Your task to perform on an android device: Clear the shopping cart on target.com. Image 0: 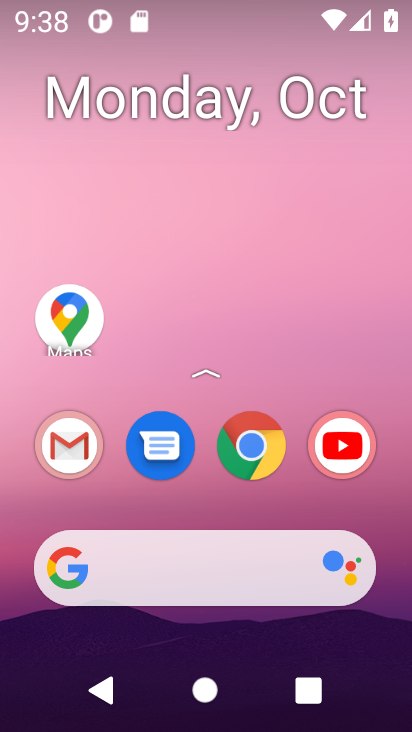
Step 0: click (197, 579)
Your task to perform on an android device: Clear the shopping cart on target.com. Image 1: 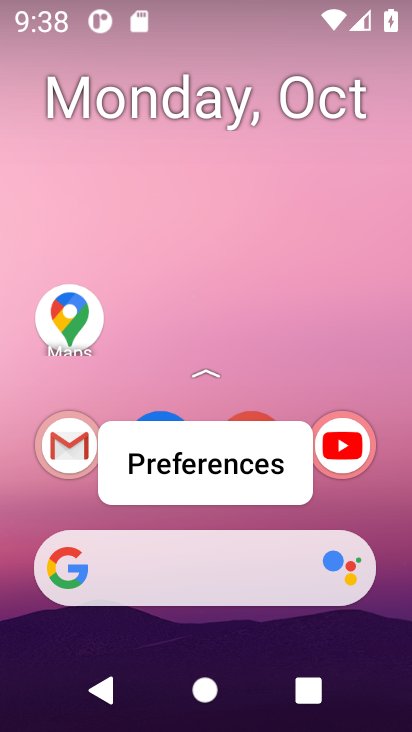
Step 1: click (182, 554)
Your task to perform on an android device: Clear the shopping cart on target.com. Image 2: 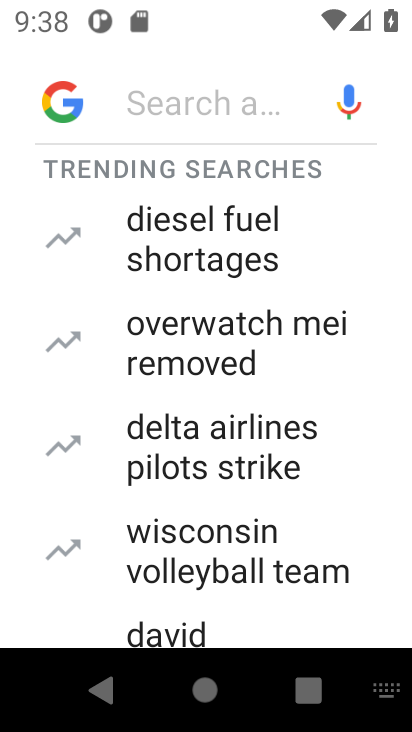
Step 2: type "target.com"
Your task to perform on an android device: Clear the shopping cart on target.com. Image 3: 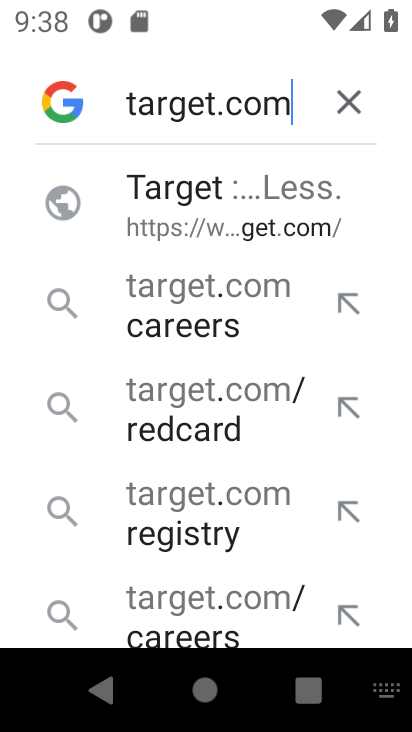
Step 3: type ""
Your task to perform on an android device: Clear the shopping cart on target.com. Image 4: 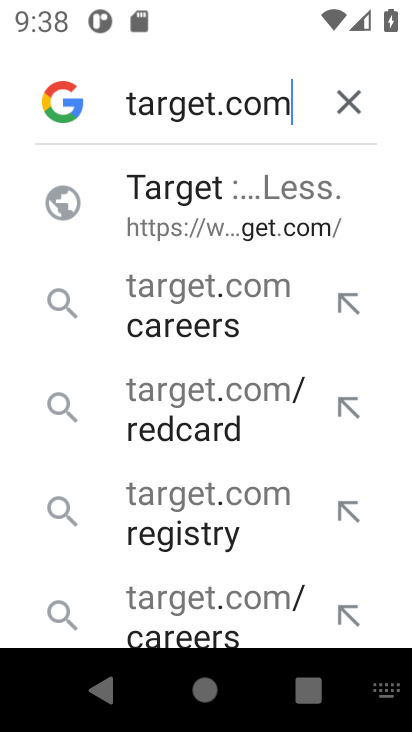
Step 4: press enter
Your task to perform on an android device: Clear the shopping cart on target.com. Image 5: 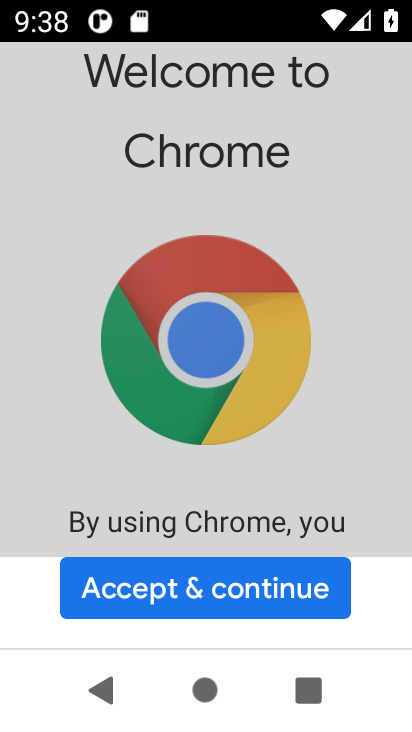
Step 5: click (217, 572)
Your task to perform on an android device: Clear the shopping cart on target.com. Image 6: 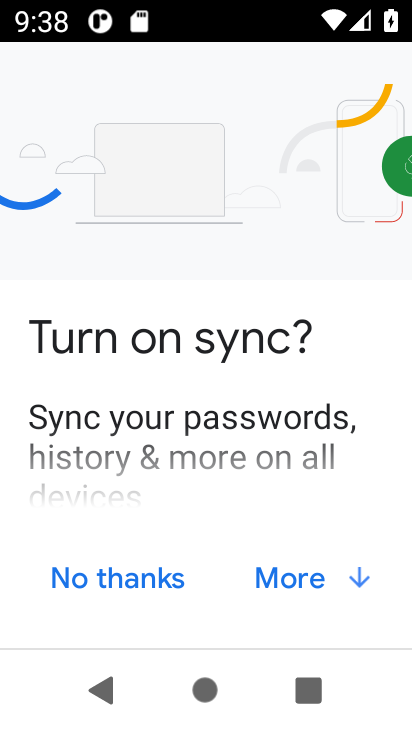
Step 6: click (177, 219)
Your task to perform on an android device: Clear the shopping cart on target.com. Image 7: 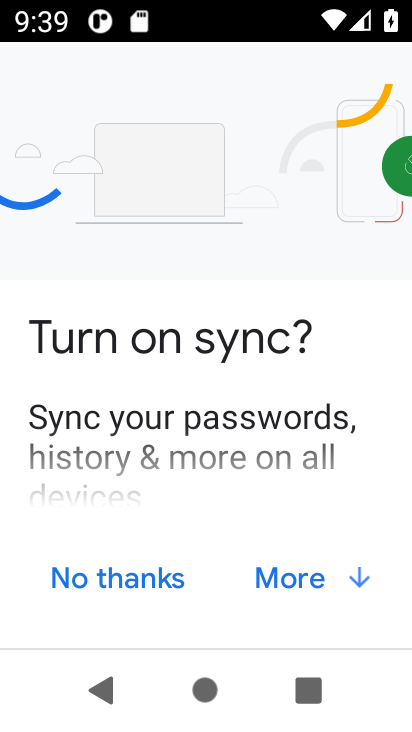
Step 7: drag from (349, 524) to (0, 354)
Your task to perform on an android device: Clear the shopping cart on target.com. Image 8: 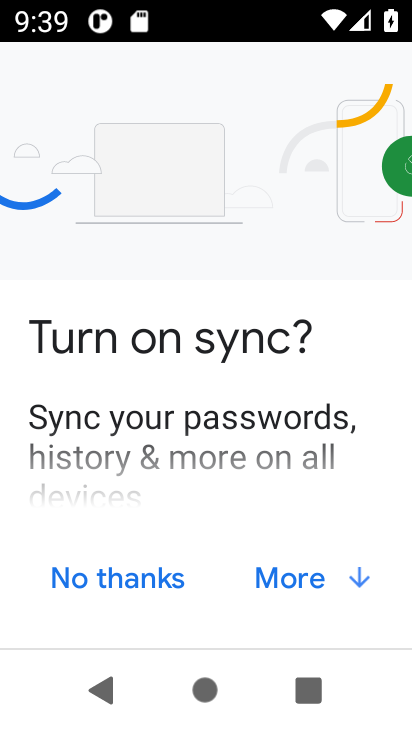
Step 8: drag from (197, 353) to (22, 362)
Your task to perform on an android device: Clear the shopping cart on target.com. Image 9: 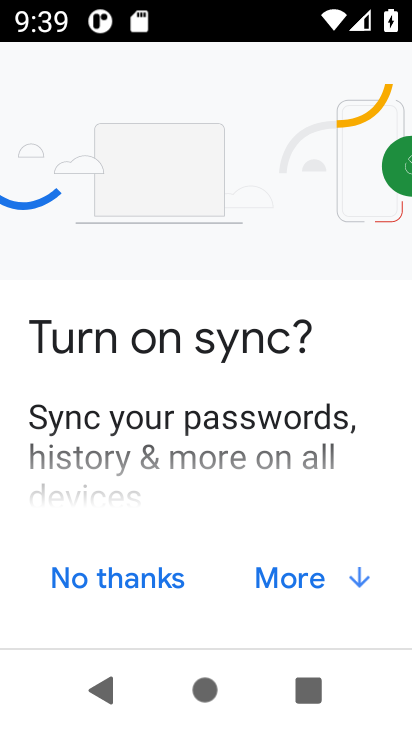
Step 9: click (202, 322)
Your task to perform on an android device: Clear the shopping cart on target.com. Image 10: 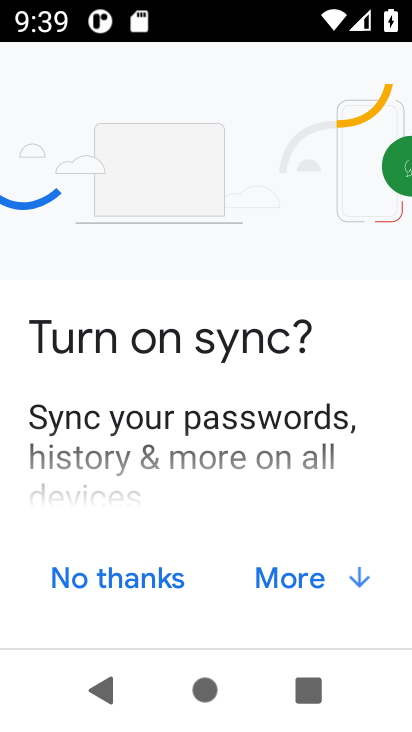
Step 10: task complete